Your task to perform on an android device: Go to CNN.com Image 0: 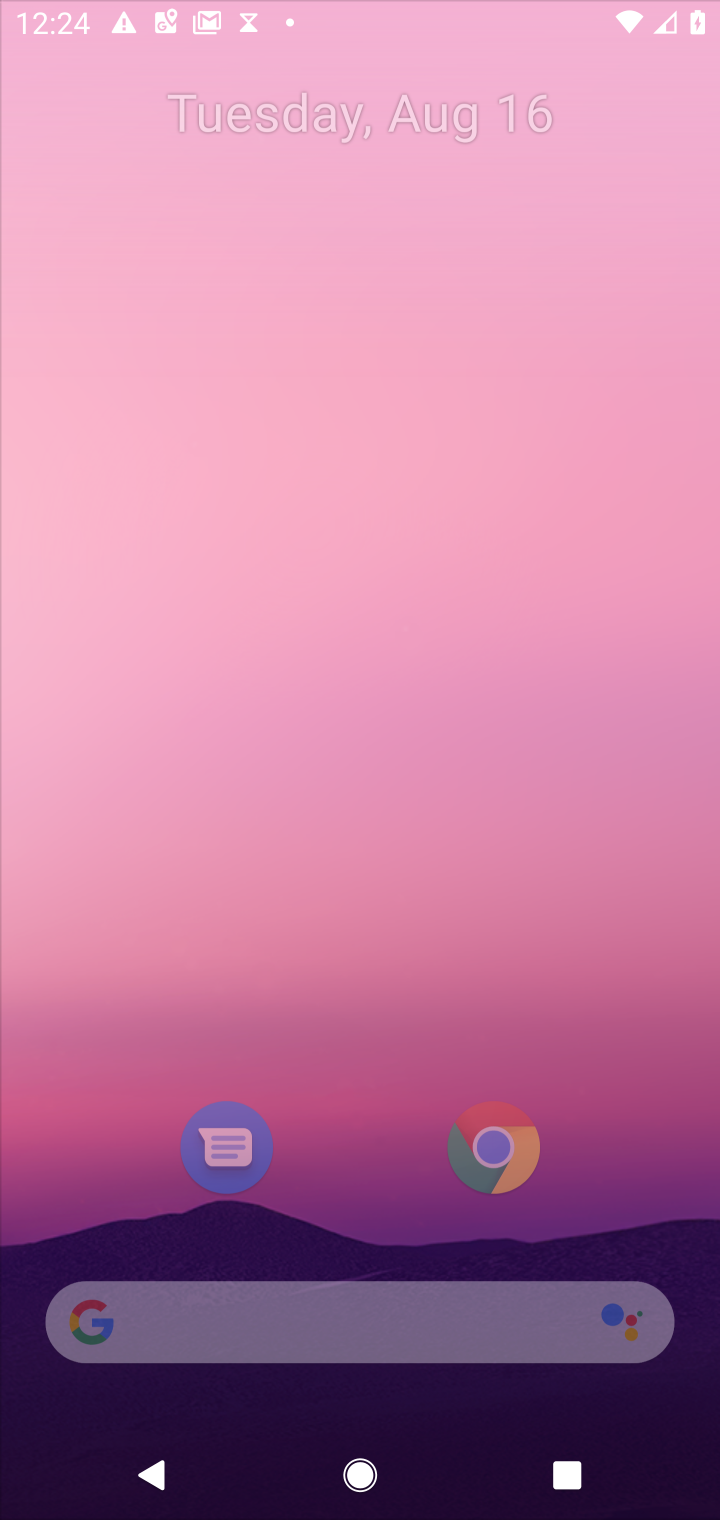
Step 0: click (525, 1208)
Your task to perform on an android device: Go to CNN.com Image 1: 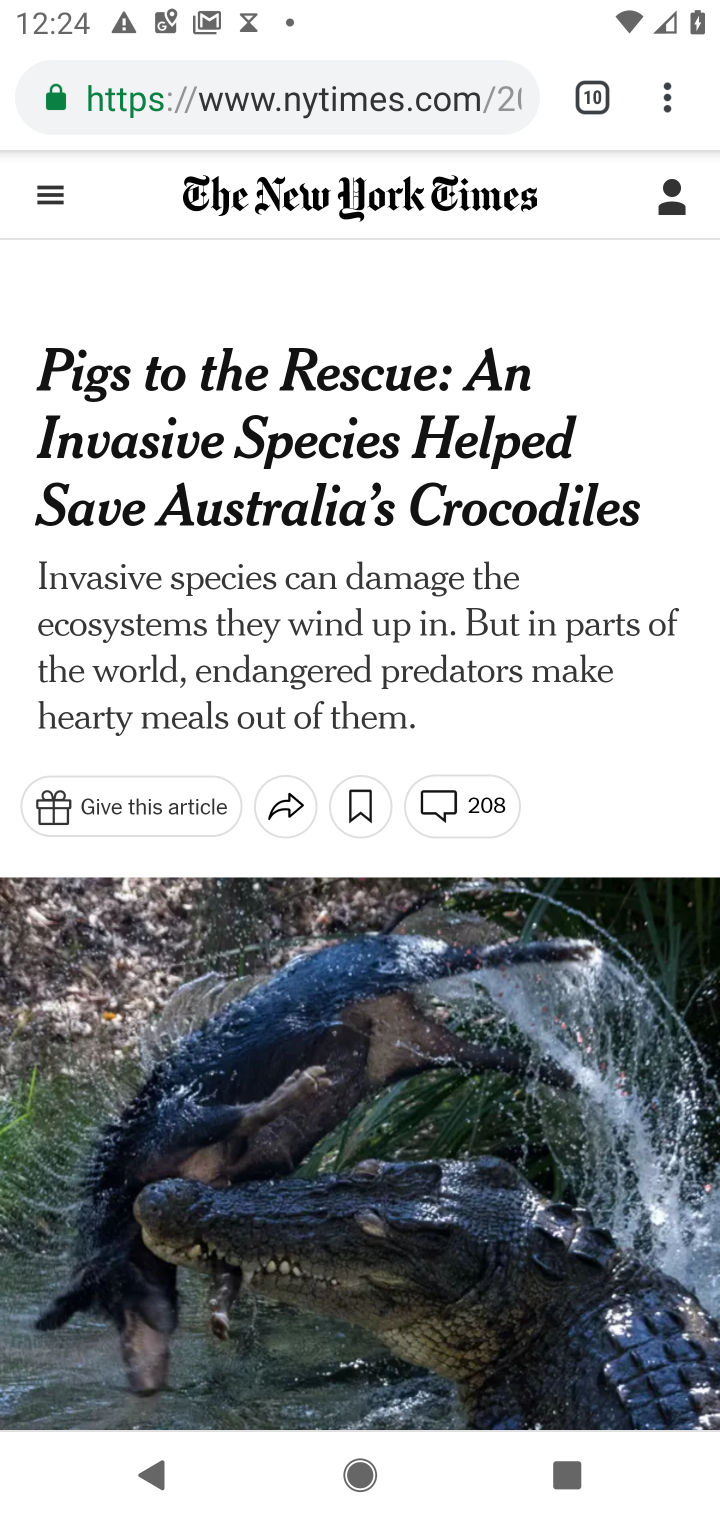
Step 1: click (587, 108)
Your task to perform on an android device: Go to CNN.com Image 2: 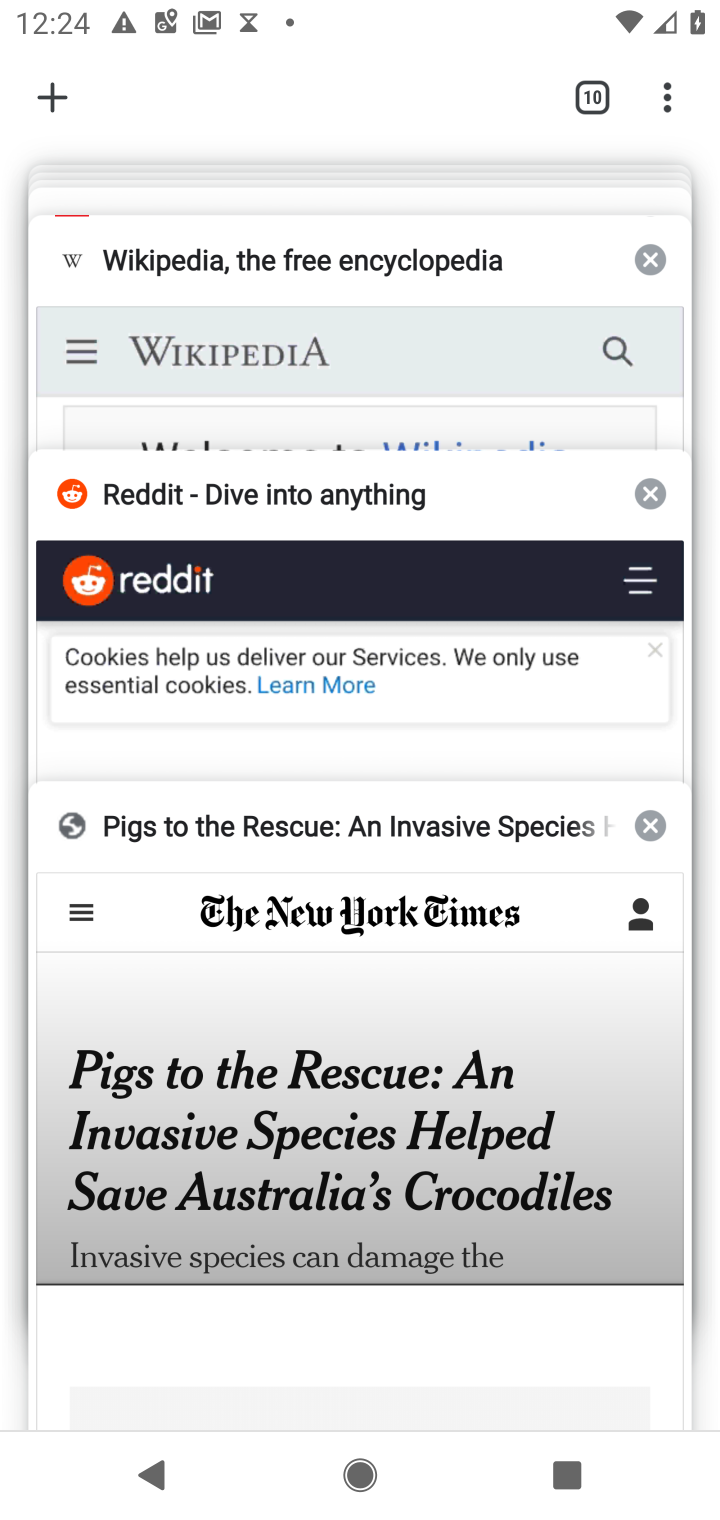
Step 2: click (60, 92)
Your task to perform on an android device: Go to CNN.com Image 3: 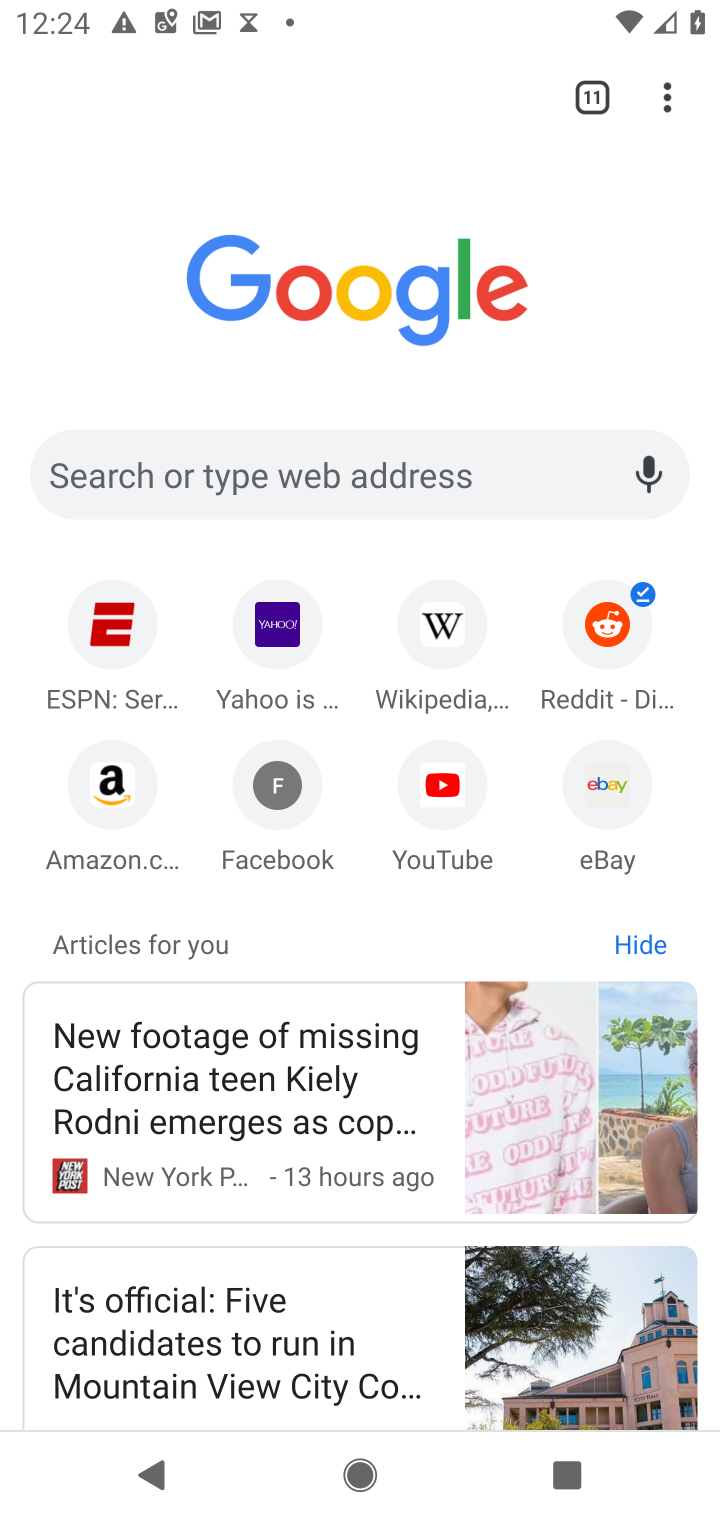
Step 3: click (256, 476)
Your task to perform on an android device: Go to CNN.com Image 4: 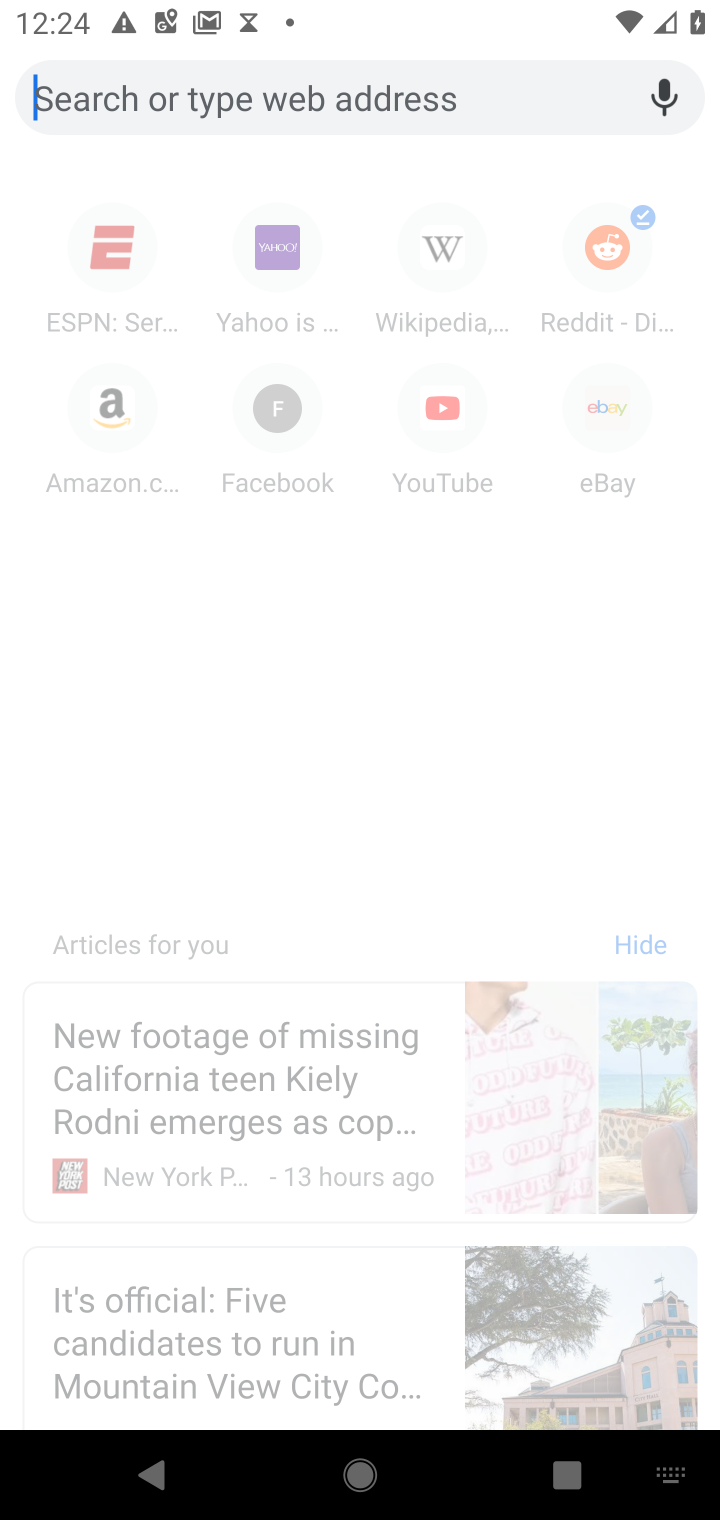
Step 4: type "CNN.com"
Your task to perform on an android device: Go to CNN.com Image 5: 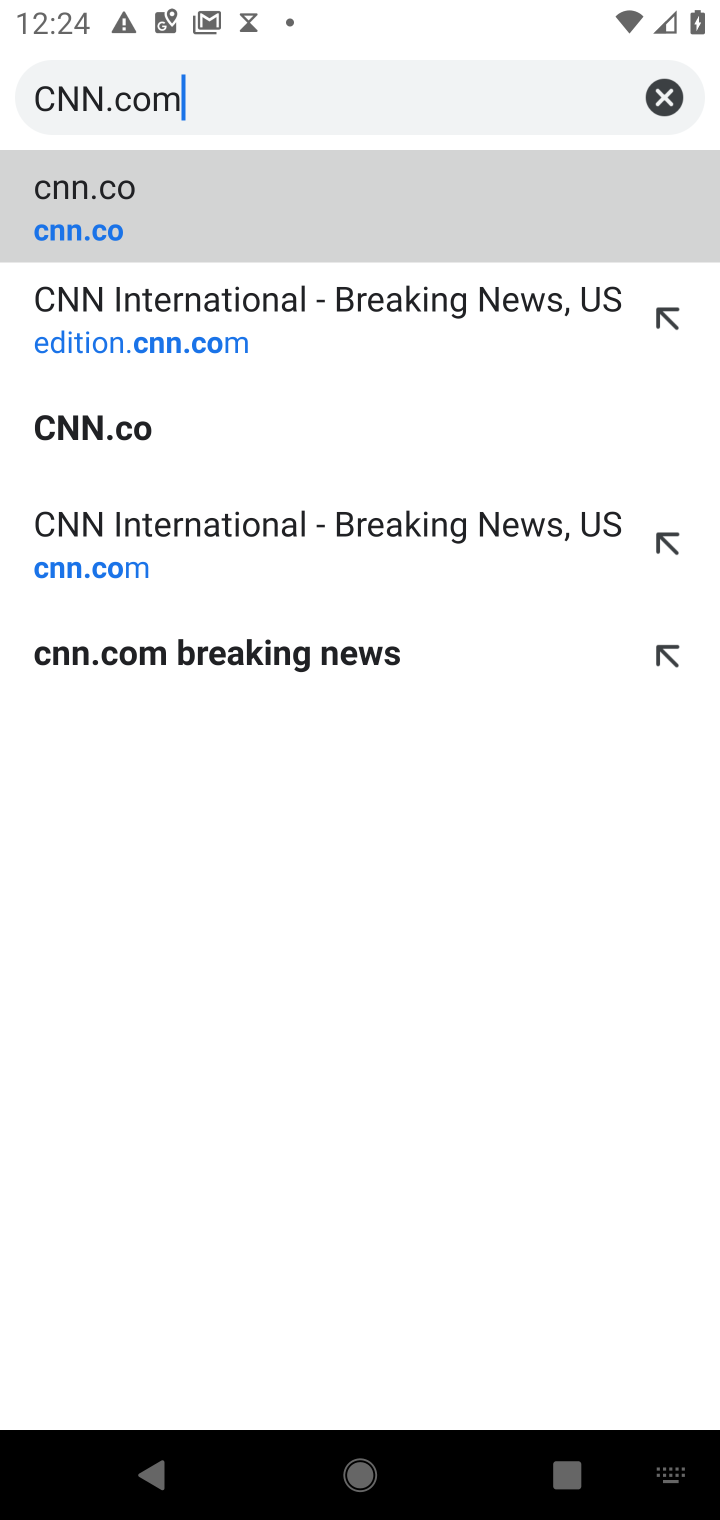
Step 5: type ""
Your task to perform on an android device: Go to CNN.com Image 6: 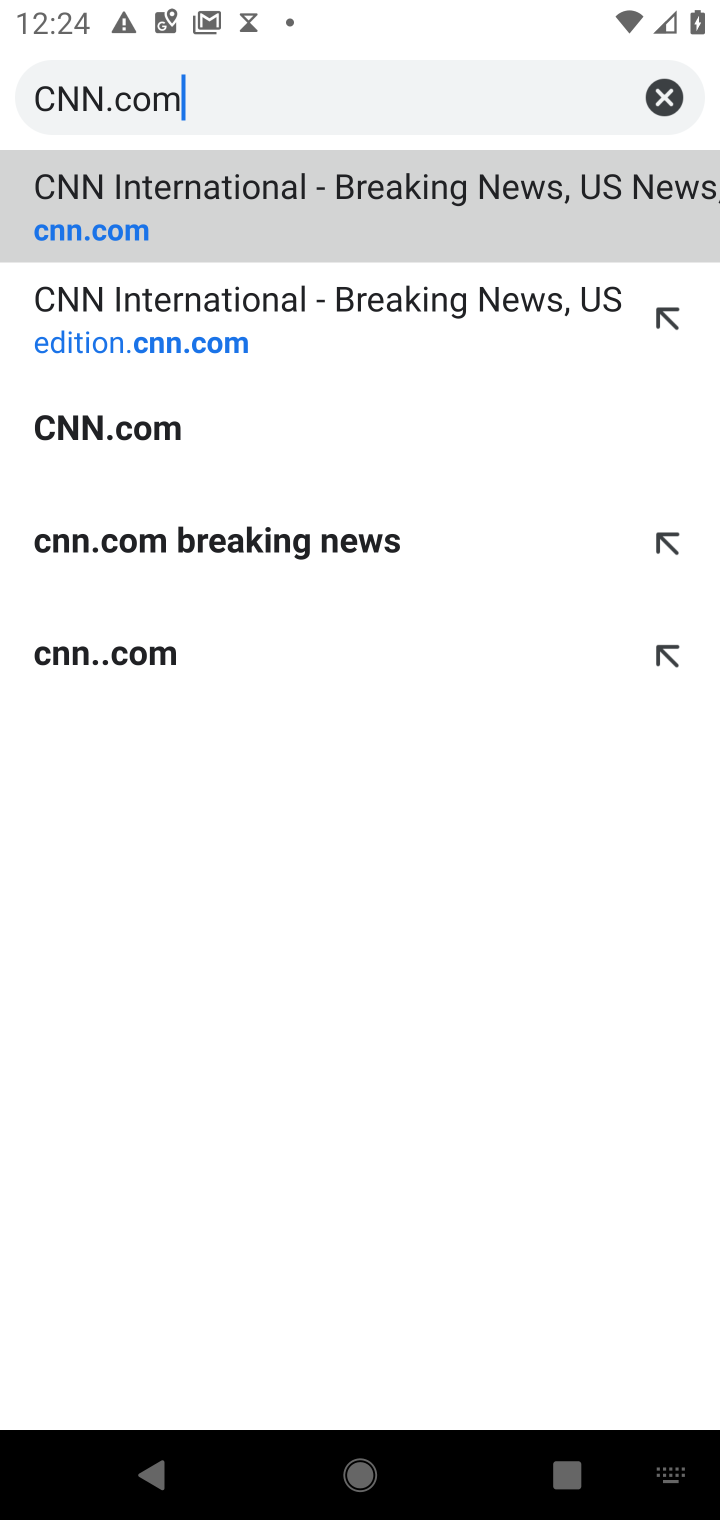
Step 6: click (212, 209)
Your task to perform on an android device: Go to CNN.com Image 7: 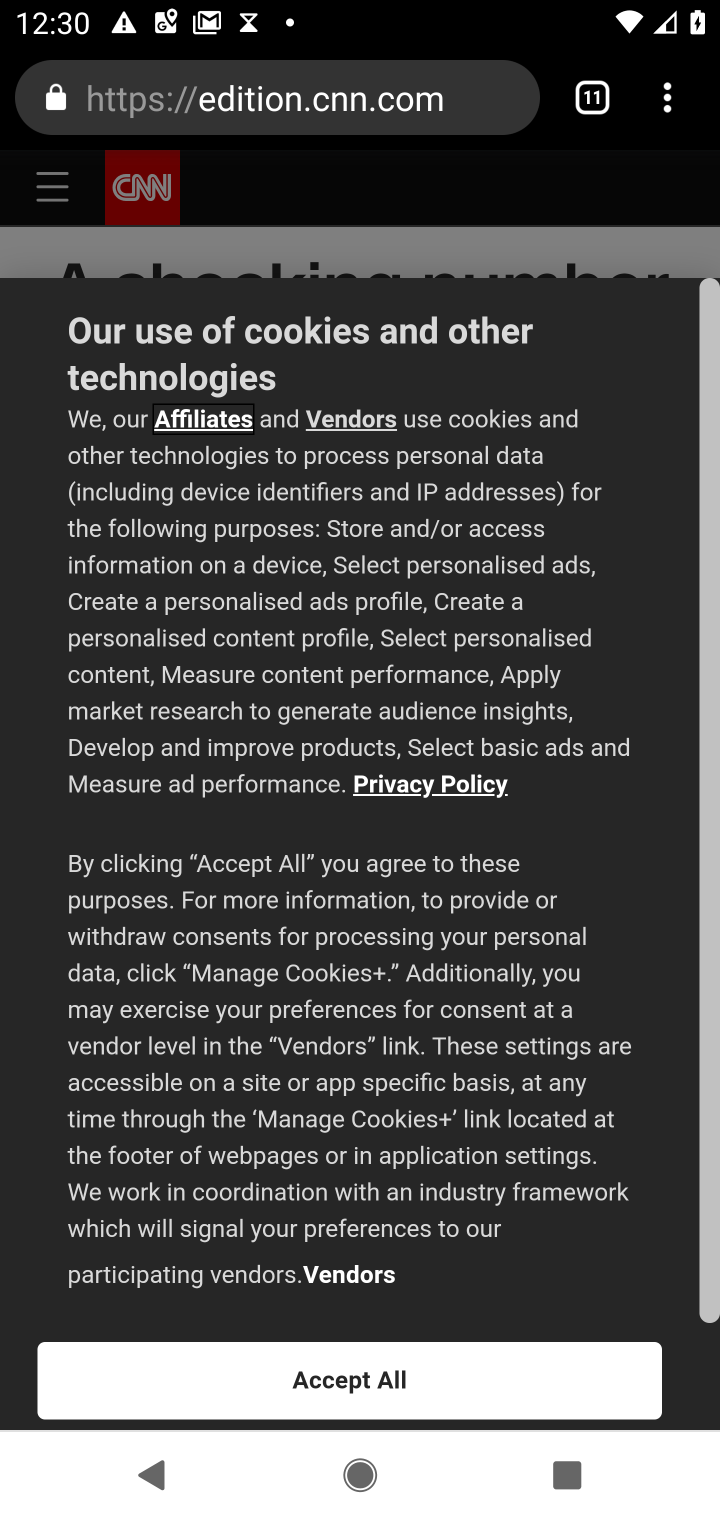
Step 7: task complete